Your task to perform on an android device: Open Maps and search for coffee Image 0: 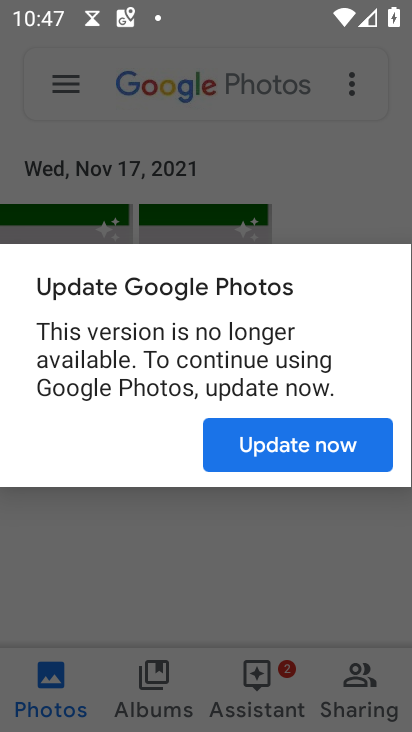
Step 0: press home button
Your task to perform on an android device: Open Maps and search for coffee Image 1: 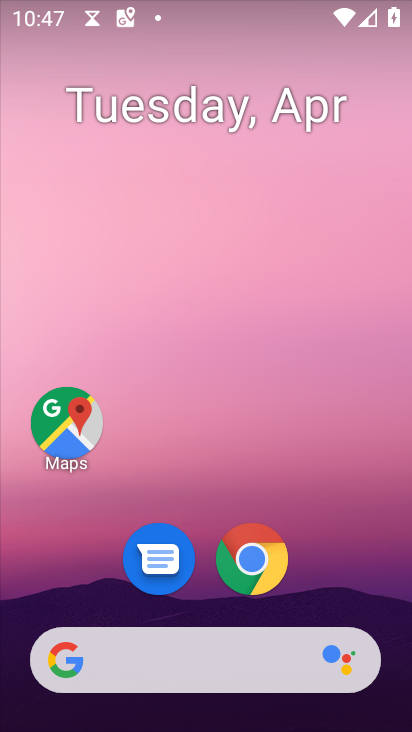
Step 1: click (77, 396)
Your task to perform on an android device: Open Maps and search for coffee Image 2: 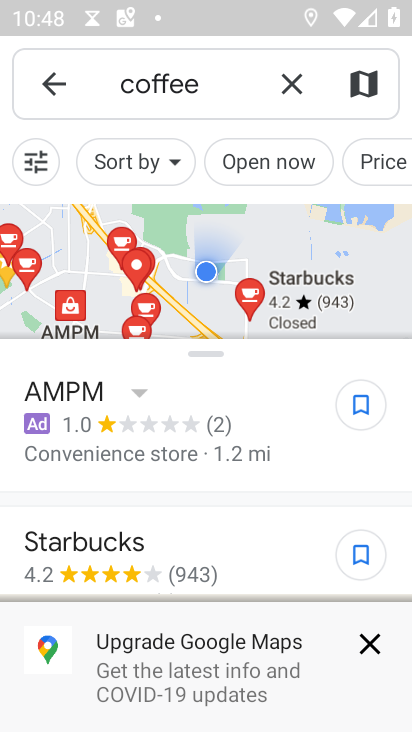
Step 2: task complete